Your task to perform on an android device: Clear the shopping cart on costco. Search for logitech g910 on costco, select the first entry, and add it to the cart. Image 0: 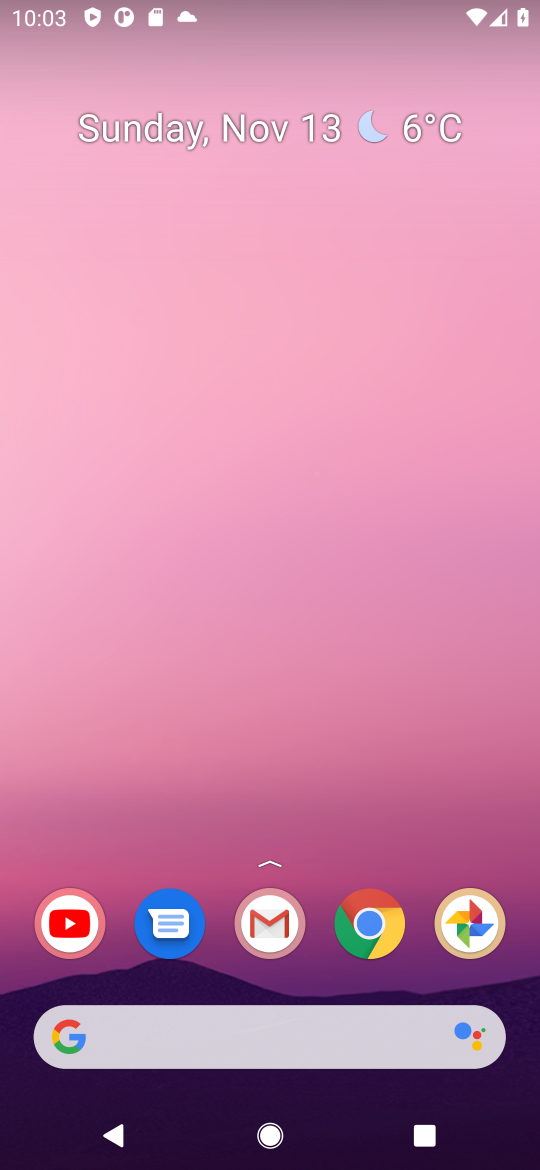
Step 0: click (362, 920)
Your task to perform on an android device: Clear the shopping cart on costco. Search for logitech g910 on costco, select the first entry, and add it to the cart. Image 1: 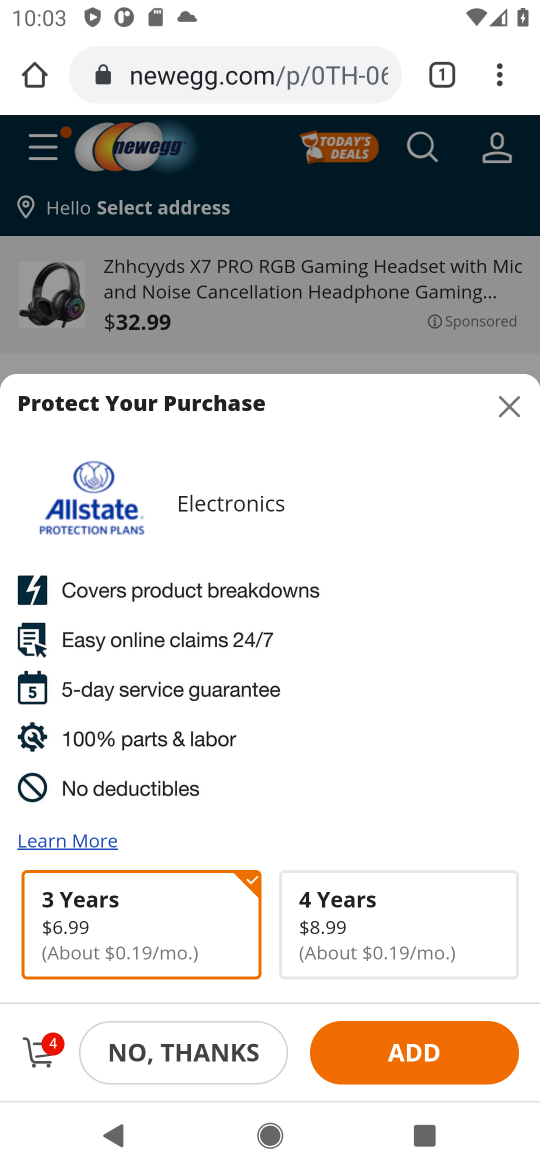
Step 1: click (315, 67)
Your task to perform on an android device: Clear the shopping cart on costco. Search for logitech g910 on costco, select the first entry, and add it to the cart. Image 2: 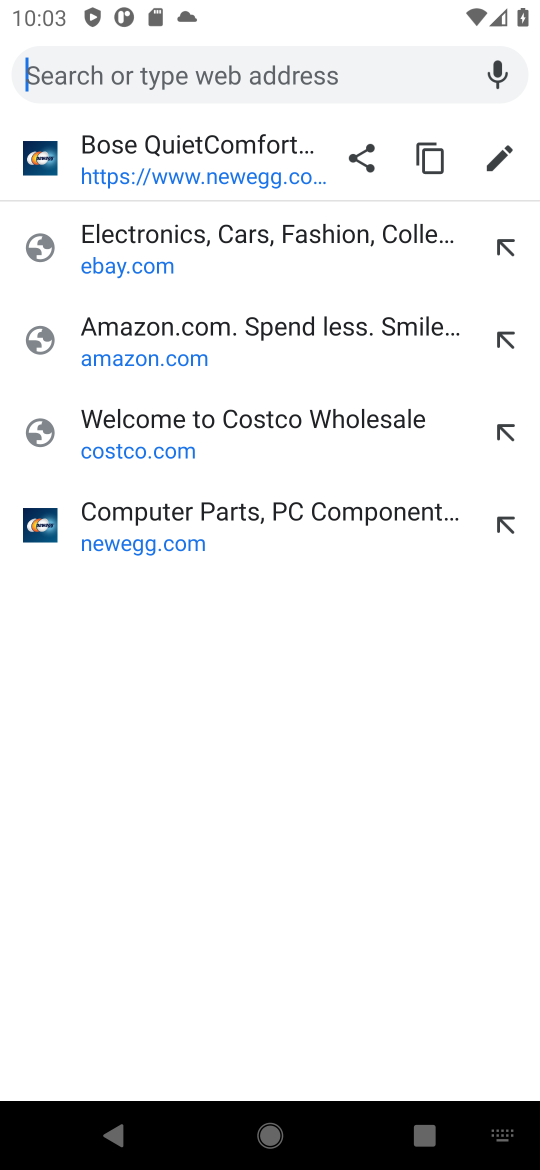
Step 2: click (311, 411)
Your task to perform on an android device: Clear the shopping cart on costco. Search for logitech g910 on costco, select the first entry, and add it to the cart. Image 3: 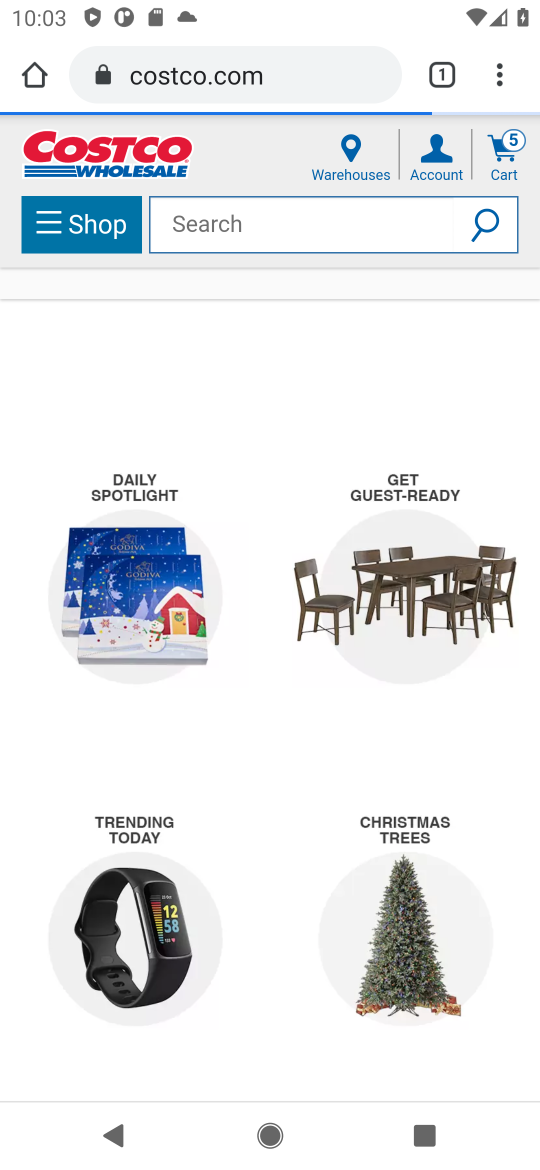
Step 3: click (511, 158)
Your task to perform on an android device: Clear the shopping cart on costco. Search for logitech g910 on costco, select the first entry, and add it to the cart. Image 4: 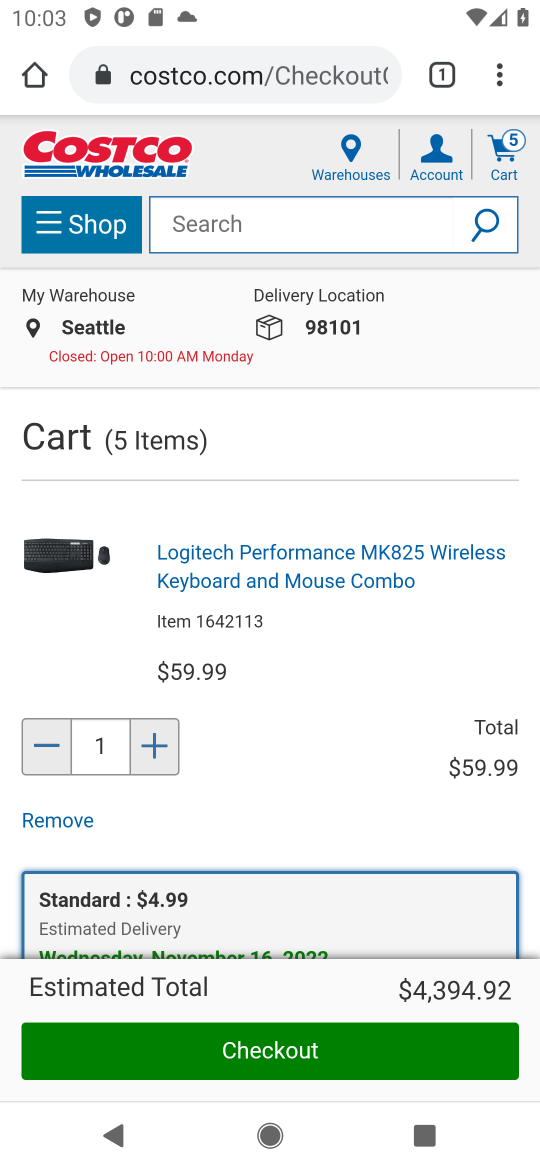
Step 4: click (91, 744)
Your task to perform on an android device: Clear the shopping cart on costco. Search for logitech g910 on costco, select the first entry, and add it to the cart. Image 5: 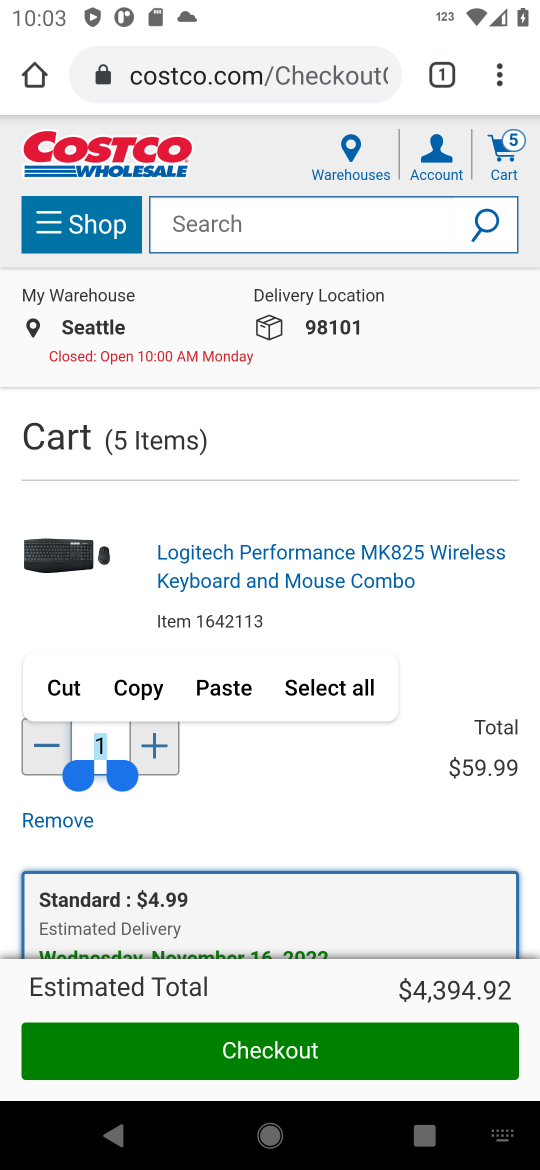
Step 5: click (52, 752)
Your task to perform on an android device: Clear the shopping cart on costco. Search for logitech g910 on costco, select the first entry, and add it to the cart. Image 6: 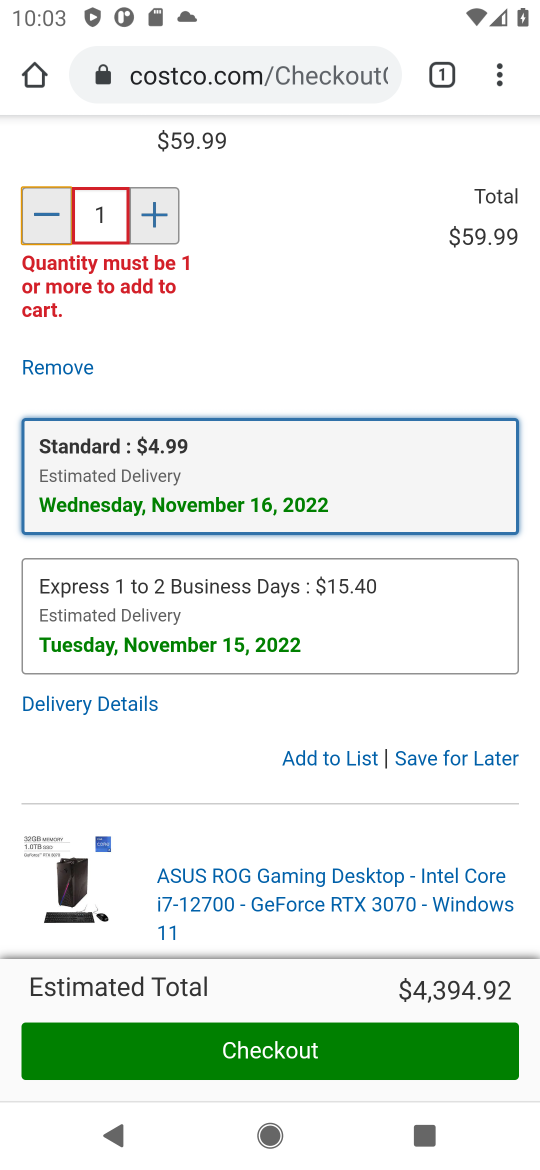
Step 6: drag from (170, 786) to (186, 945)
Your task to perform on an android device: Clear the shopping cart on costco. Search for logitech g910 on costco, select the first entry, and add it to the cart. Image 7: 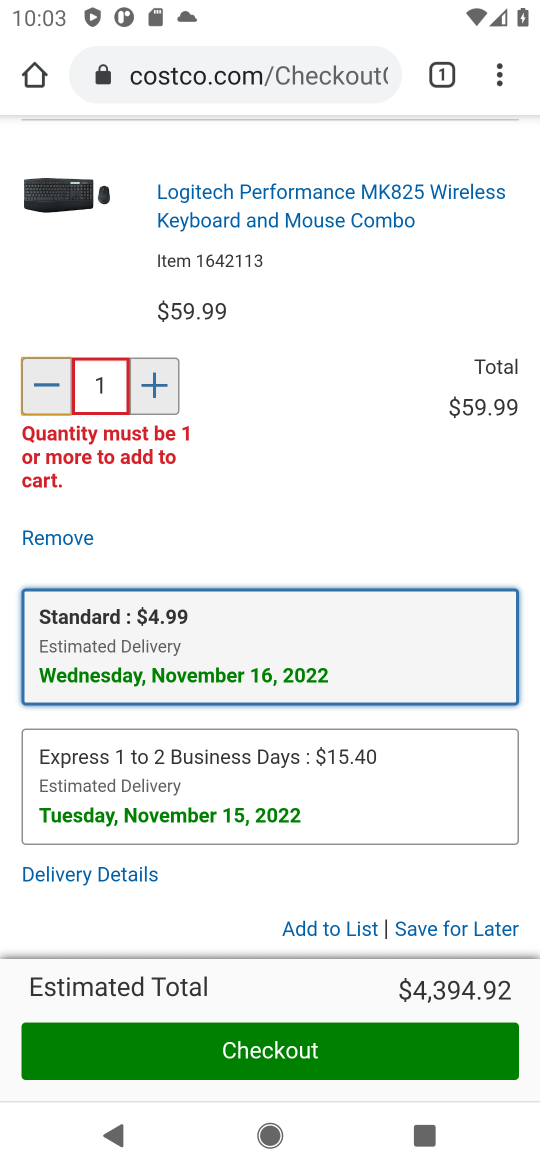
Step 7: click (36, 380)
Your task to perform on an android device: Clear the shopping cart on costco. Search for logitech g910 on costco, select the first entry, and add it to the cart. Image 8: 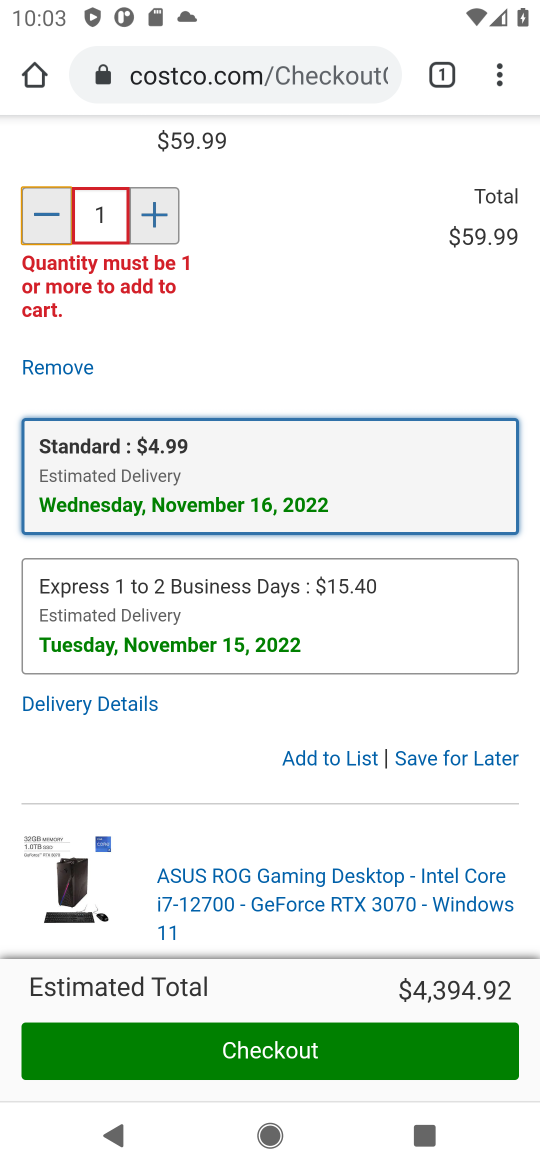
Step 8: click (52, 223)
Your task to perform on an android device: Clear the shopping cart on costco. Search for logitech g910 on costco, select the first entry, and add it to the cart. Image 9: 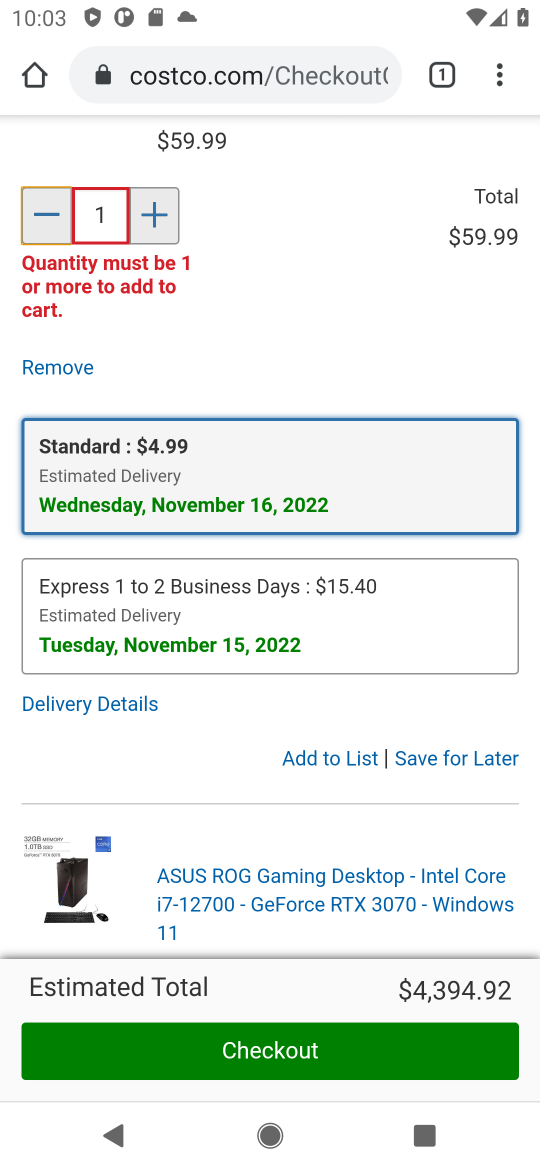
Step 9: click (73, 366)
Your task to perform on an android device: Clear the shopping cart on costco. Search for logitech g910 on costco, select the first entry, and add it to the cart. Image 10: 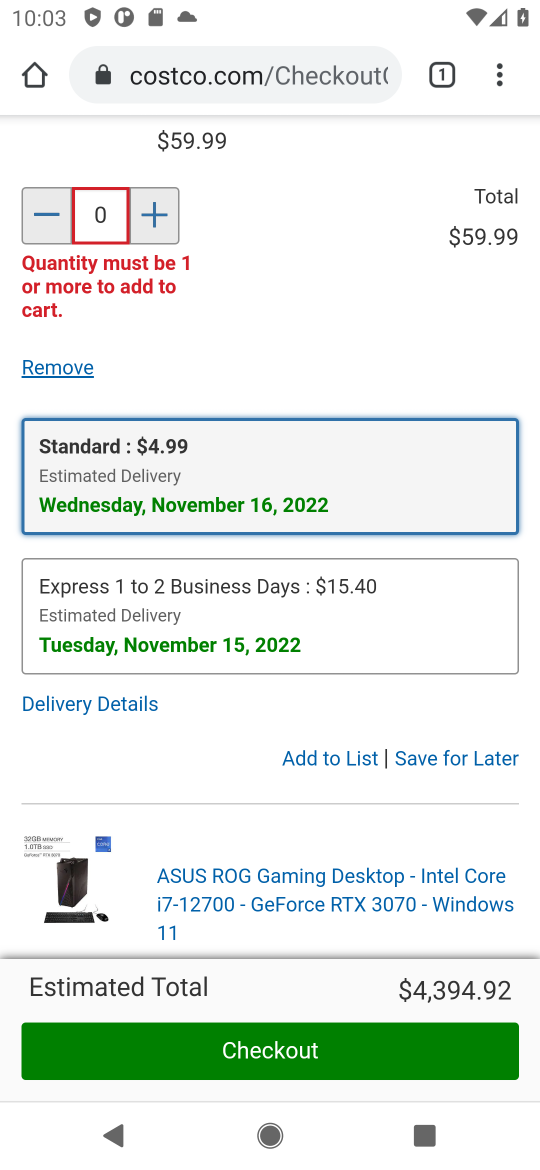
Step 10: drag from (204, 655) to (159, 304)
Your task to perform on an android device: Clear the shopping cart on costco. Search for logitech g910 on costco, select the first entry, and add it to the cart. Image 11: 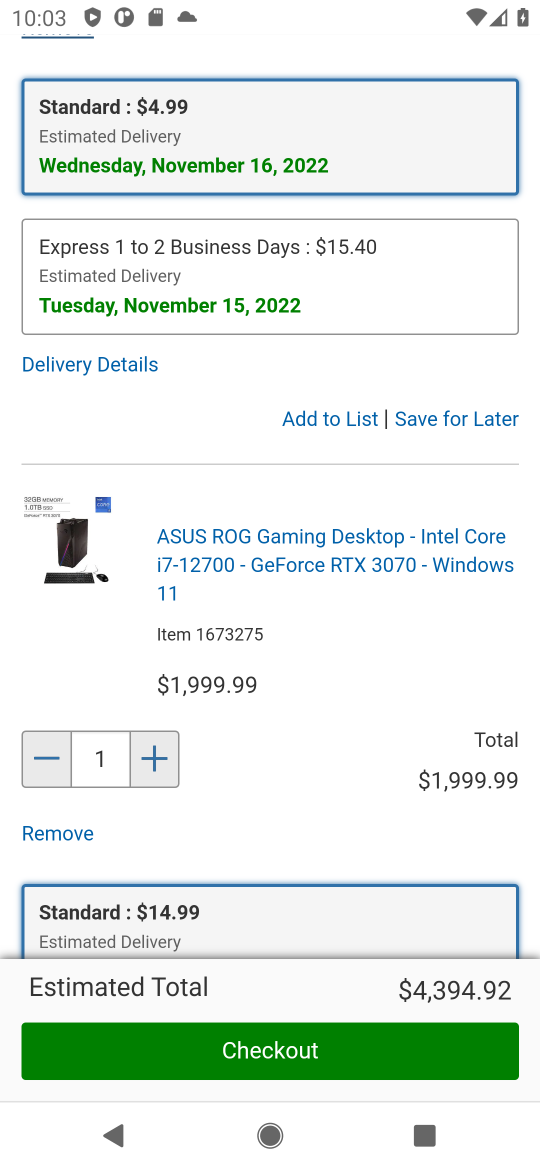
Step 11: click (47, 761)
Your task to perform on an android device: Clear the shopping cart on costco. Search for logitech g910 on costco, select the first entry, and add it to the cart. Image 12: 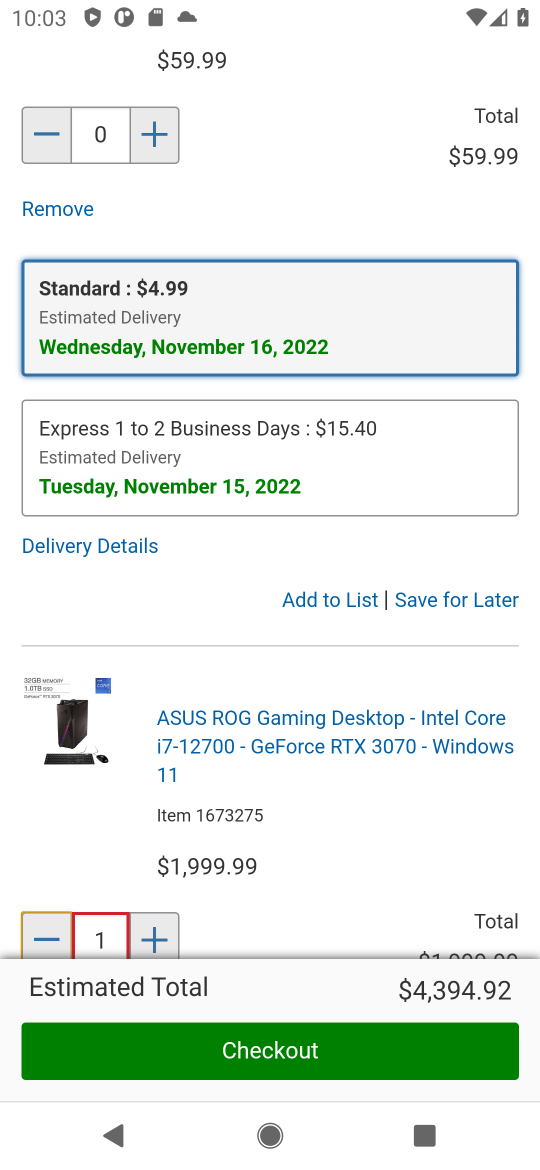
Step 12: drag from (319, 814) to (310, 333)
Your task to perform on an android device: Clear the shopping cart on costco. Search for logitech g910 on costco, select the first entry, and add it to the cart. Image 13: 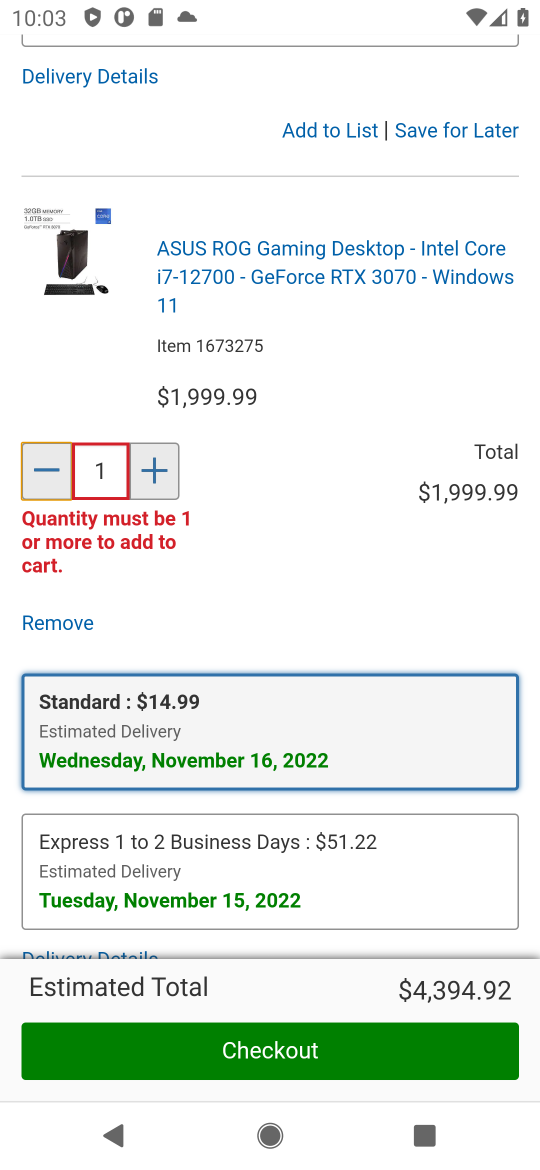
Step 13: click (40, 477)
Your task to perform on an android device: Clear the shopping cart on costco. Search for logitech g910 on costco, select the first entry, and add it to the cart. Image 14: 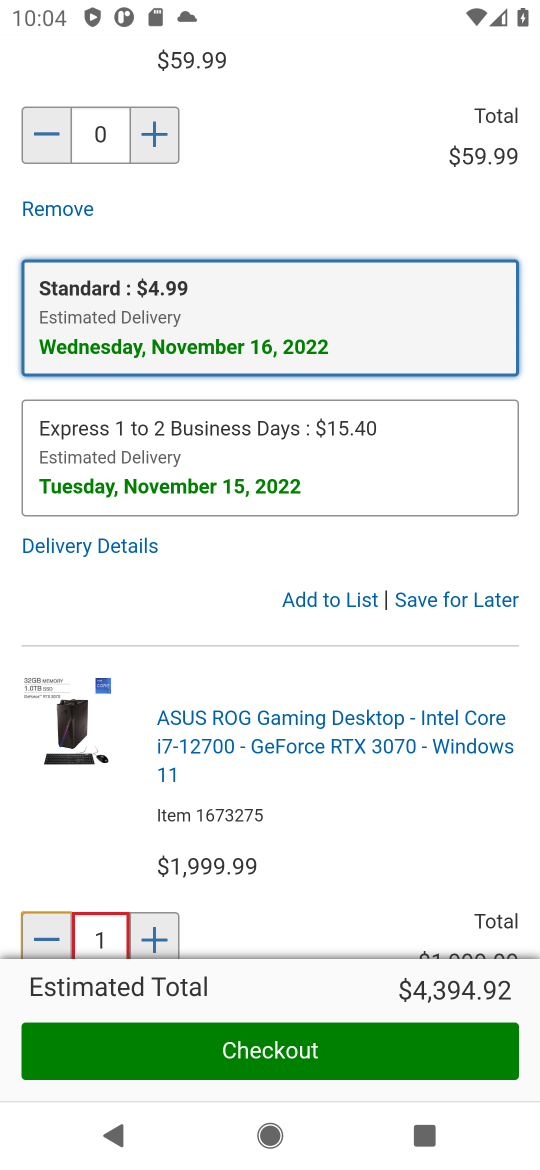
Step 14: drag from (331, 862) to (332, 199)
Your task to perform on an android device: Clear the shopping cart on costco. Search for logitech g910 on costco, select the first entry, and add it to the cart. Image 15: 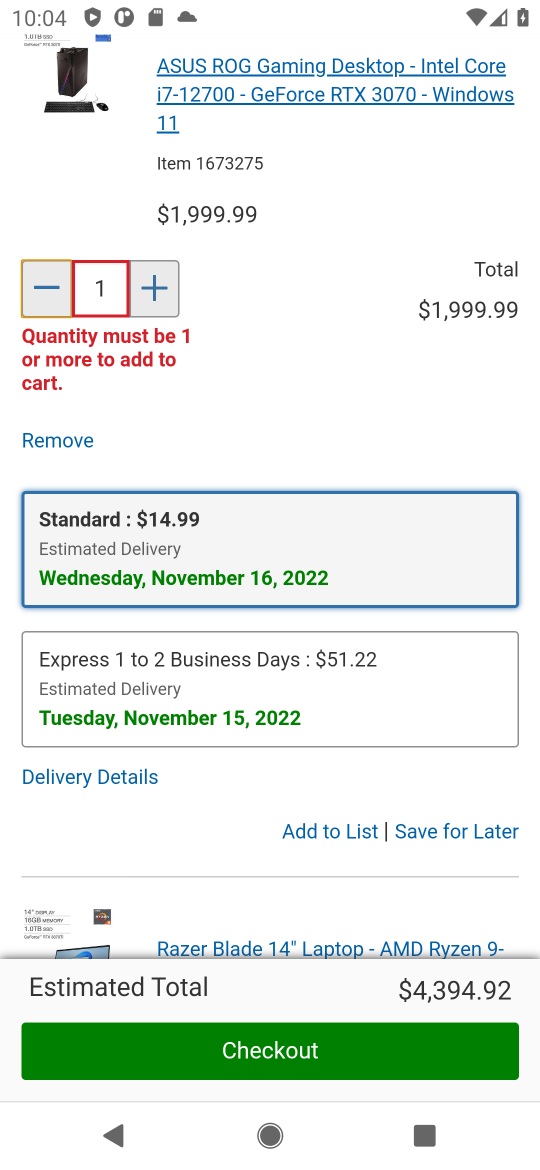
Step 15: click (62, 435)
Your task to perform on an android device: Clear the shopping cart on costco. Search for logitech g910 on costco, select the first entry, and add it to the cart. Image 16: 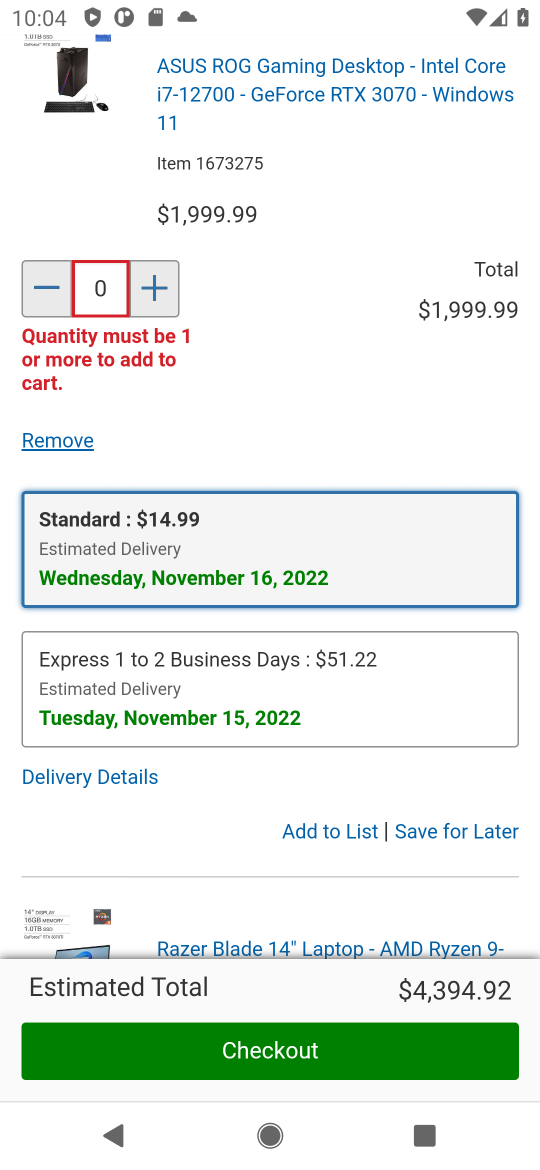
Step 16: drag from (361, 738) to (428, 237)
Your task to perform on an android device: Clear the shopping cart on costco. Search for logitech g910 on costco, select the first entry, and add it to the cart. Image 17: 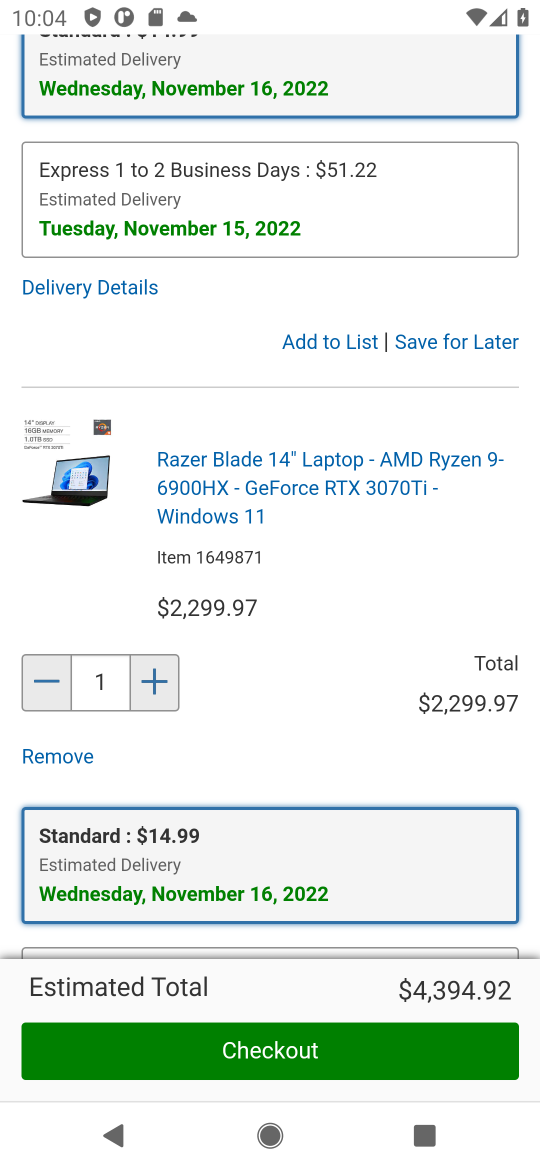
Step 17: click (50, 681)
Your task to perform on an android device: Clear the shopping cart on costco. Search for logitech g910 on costco, select the first entry, and add it to the cart. Image 18: 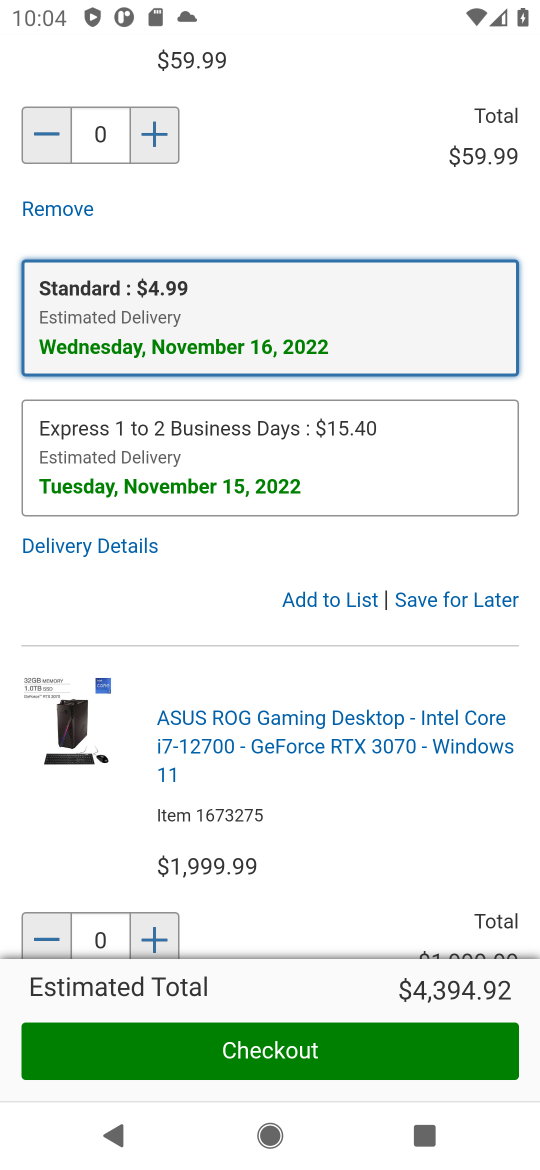
Step 18: drag from (403, 767) to (410, 177)
Your task to perform on an android device: Clear the shopping cart on costco. Search for logitech g910 on costco, select the first entry, and add it to the cart. Image 19: 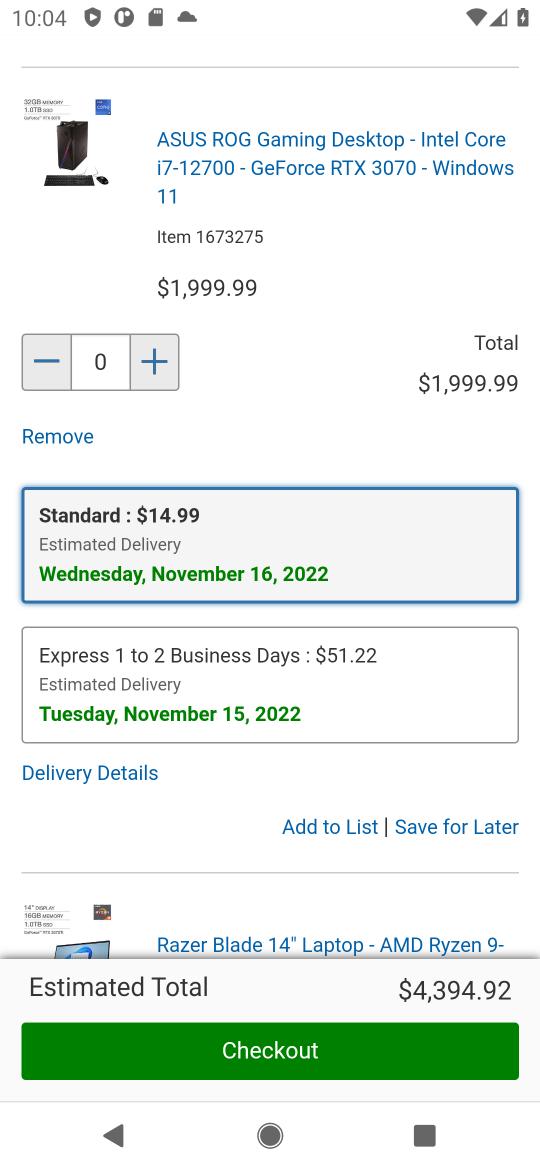
Step 19: drag from (243, 884) to (315, 170)
Your task to perform on an android device: Clear the shopping cart on costco. Search for logitech g910 on costco, select the first entry, and add it to the cart. Image 20: 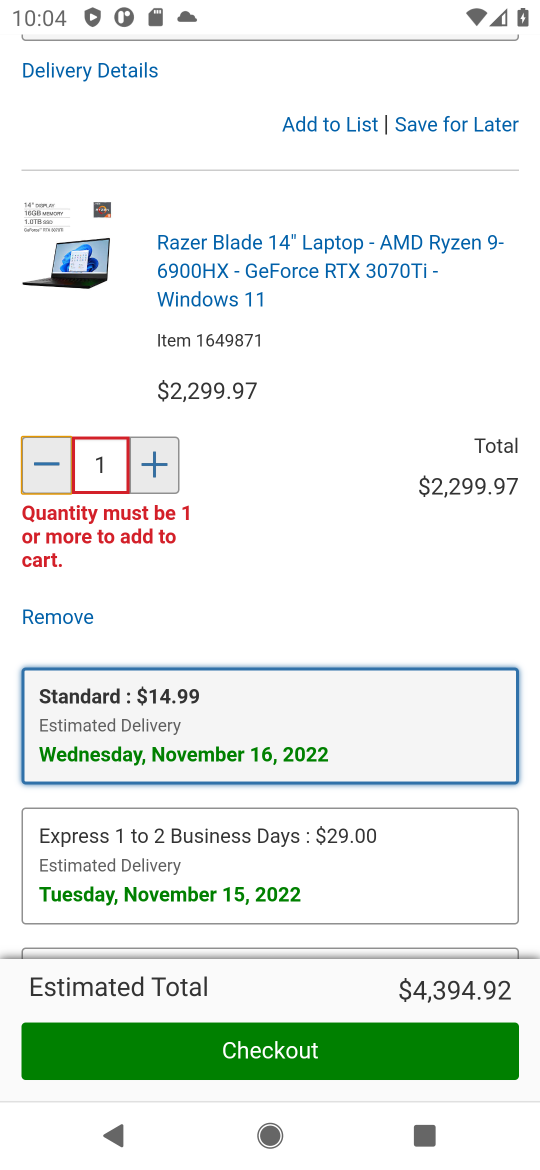
Step 20: click (62, 605)
Your task to perform on an android device: Clear the shopping cart on costco. Search for logitech g910 on costco, select the first entry, and add it to the cart. Image 21: 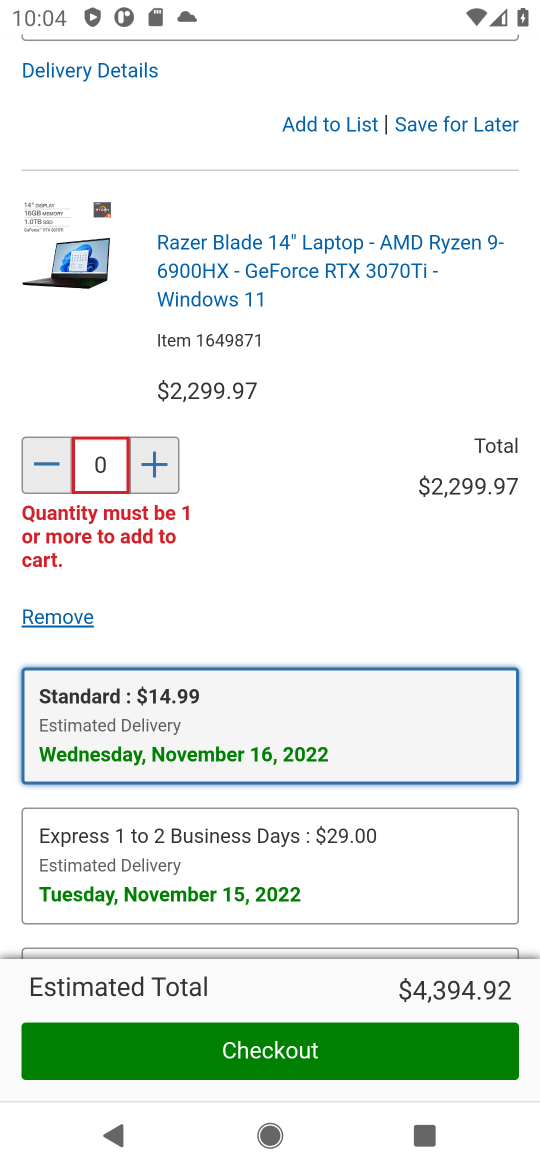
Step 21: drag from (431, 933) to (479, 183)
Your task to perform on an android device: Clear the shopping cart on costco. Search for logitech g910 on costco, select the first entry, and add it to the cart. Image 22: 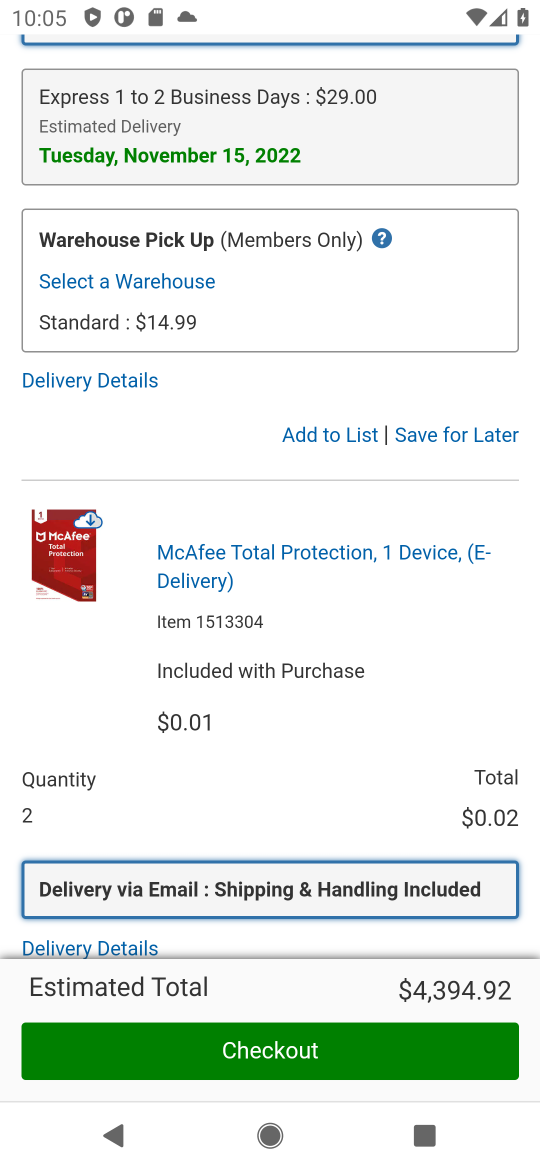
Step 22: drag from (282, 224) to (314, 958)
Your task to perform on an android device: Clear the shopping cart on costco. Search for logitech g910 on costco, select the first entry, and add it to the cart. Image 23: 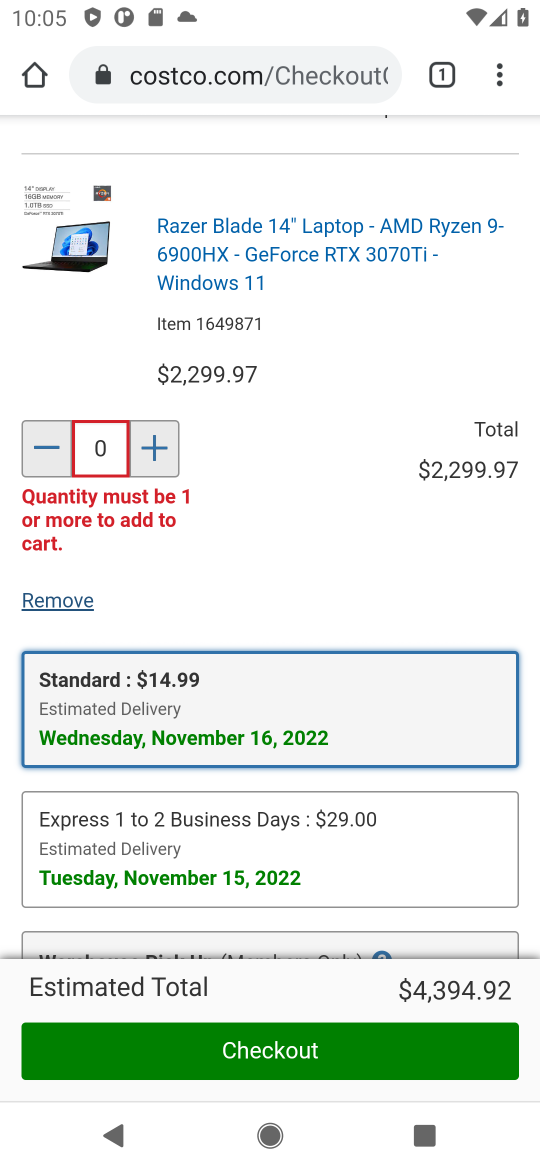
Step 23: drag from (285, 157) to (326, 743)
Your task to perform on an android device: Clear the shopping cart on costco. Search for logitech g910 on costco, select the first entry, and add it to the cart. Image 24: 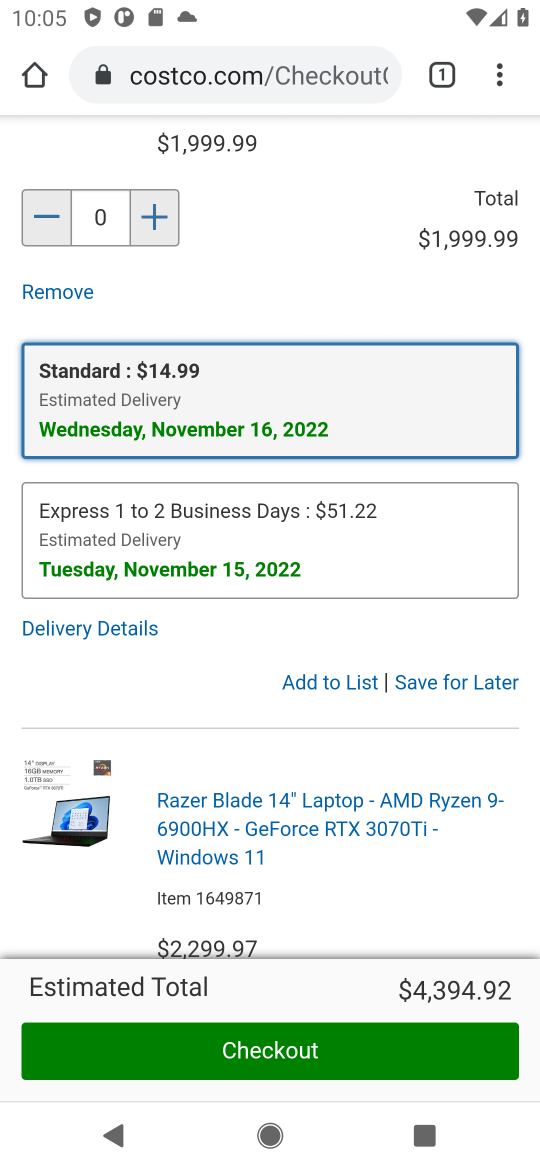
Step 24: drag from (298, 258) to (491, 814)
Your task to perform on an android device: Clear the shopping cart on costco. Search for logitech g910 on costco, select the first entry, and add it to the cart. Image 25: 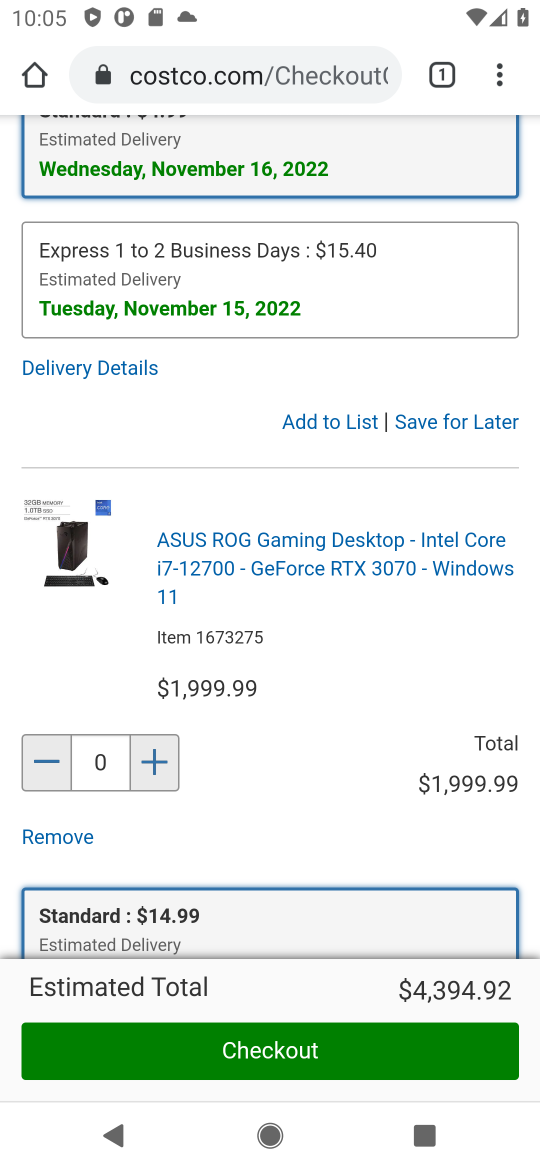
Step 25: drag from (342, 253) to (437, 823)
Your task to perform on an android device: Clear the shopping cart on costco. Search for logitech g910 on costco, select the first entry, and add it to the cart. Image 26: 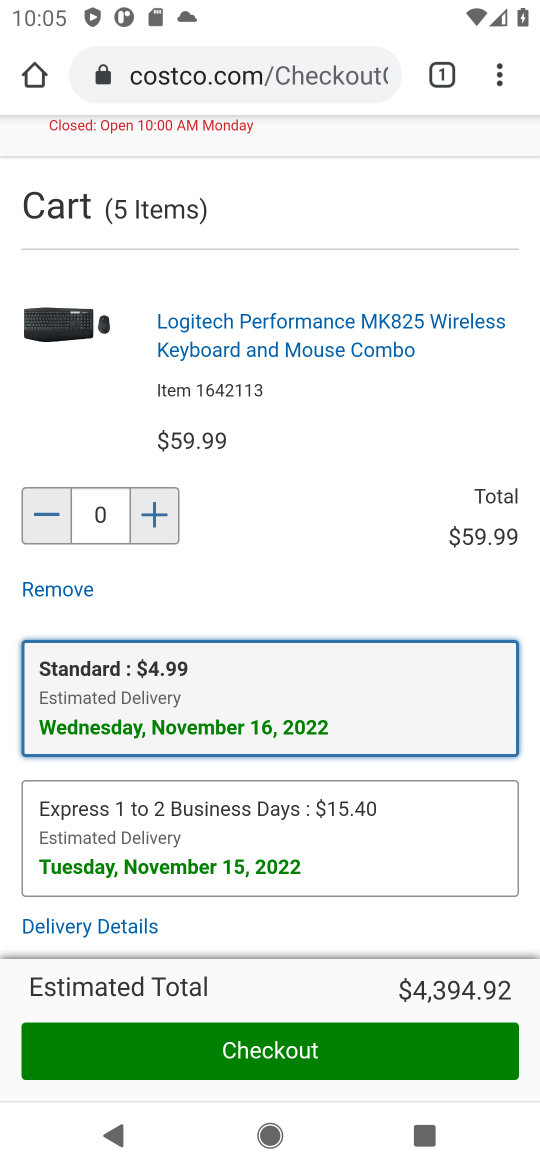
Step 26: drag from (352, 272) to (505, 805)
Your task to perform on an android device: Clear the shopping cart on costco. Search for logitech g910 on costco, select the first entry, and add it to the cart. Image 27: 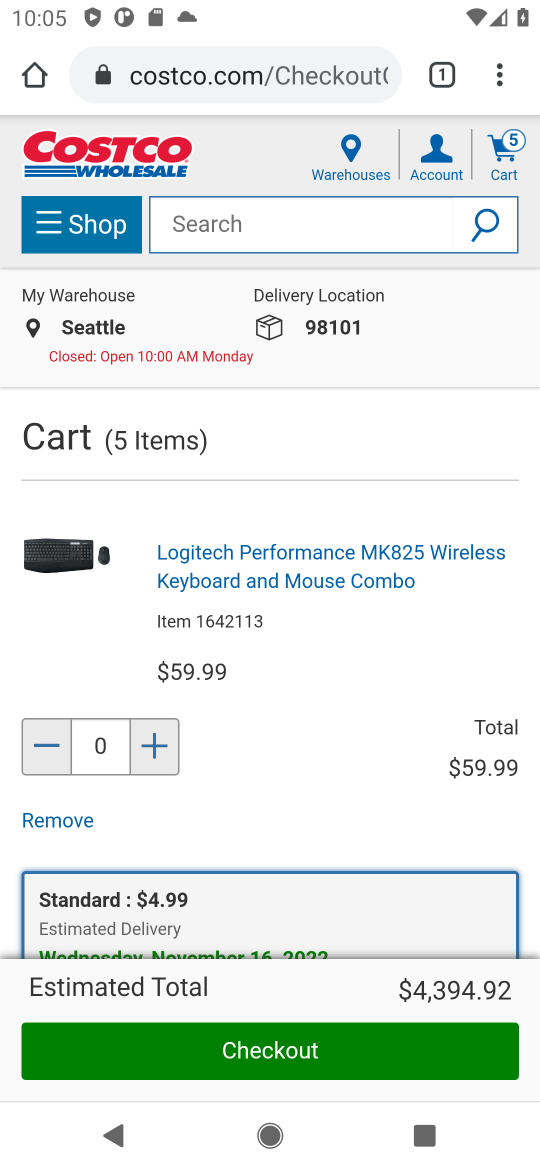
Step 27: click (366, 214)
Your task to perform on an android device: Clear the shopping cart on costco. Search for logitech g910 on costco, select the first entry, and add it to the cart. Image 28: 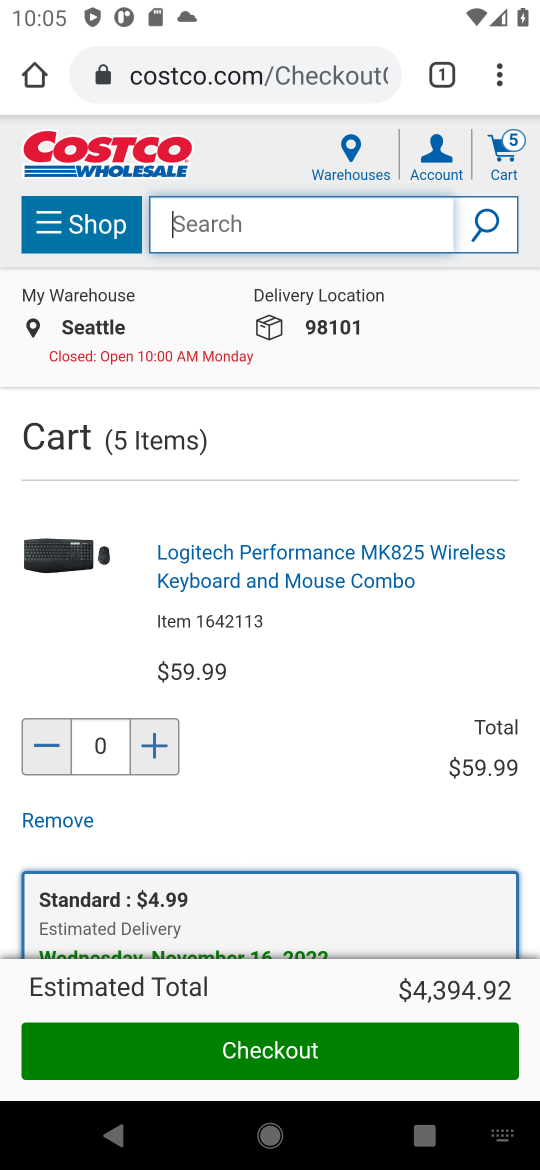
Step 28: type "logitech g910"
Your task to perform on an android device: Clear the shopping cart on costco. Search for logitech g910 on costco, select the first entry, and add it to the cart. Image 29: 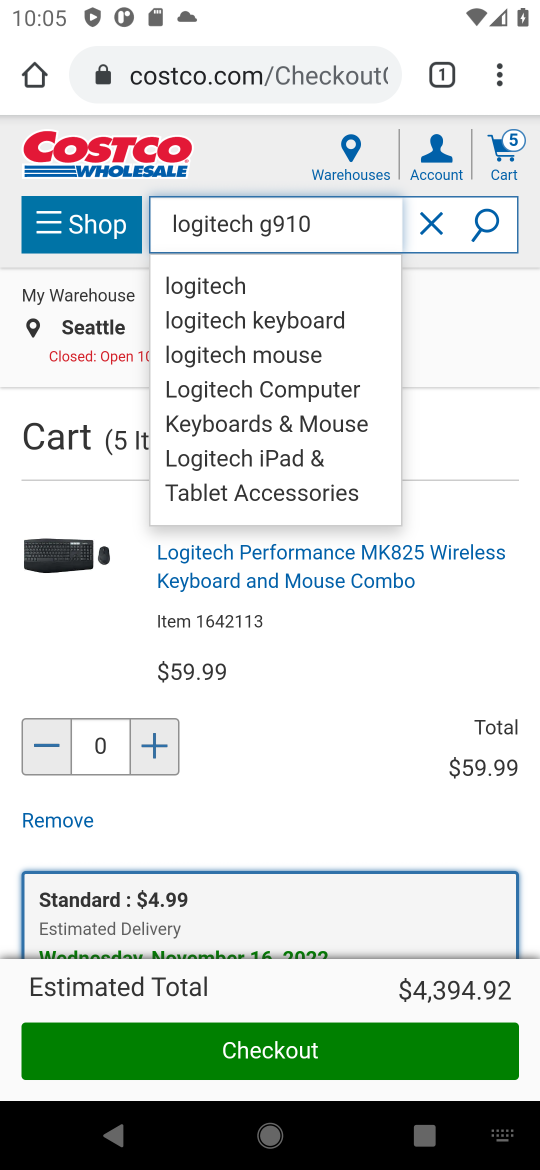
Step 29: click (507, 226)
Your task to perform on an android device: Clear the shopping cart on costco. Search for logitech g910 on costco, select the first entry, and add it to the cart. Image 30: 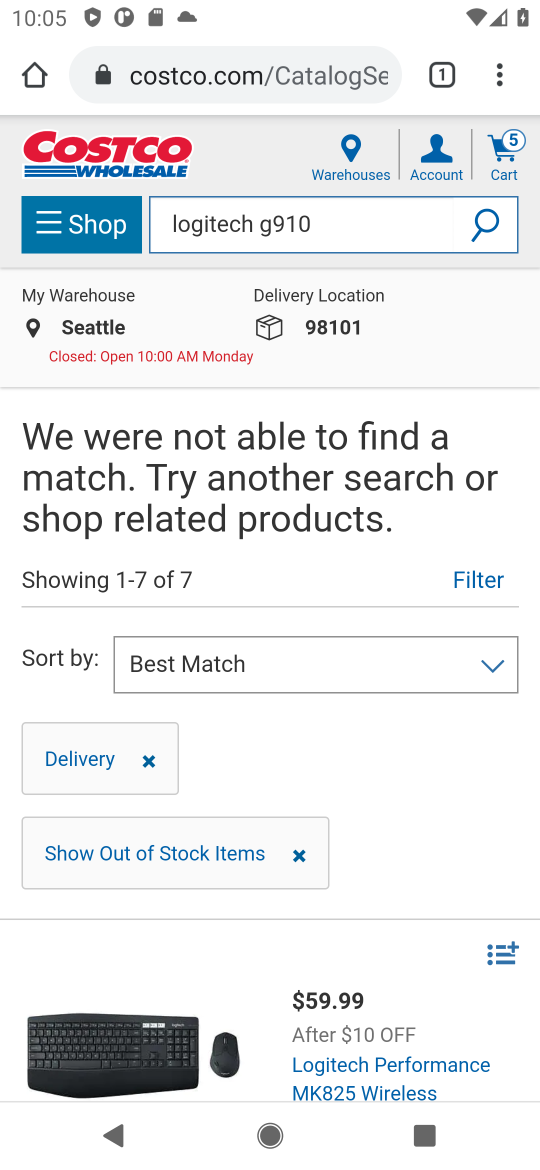
Step 30: task complete